Your task to perform on an android device: Open calendar and show me the second week of next month Image 0: 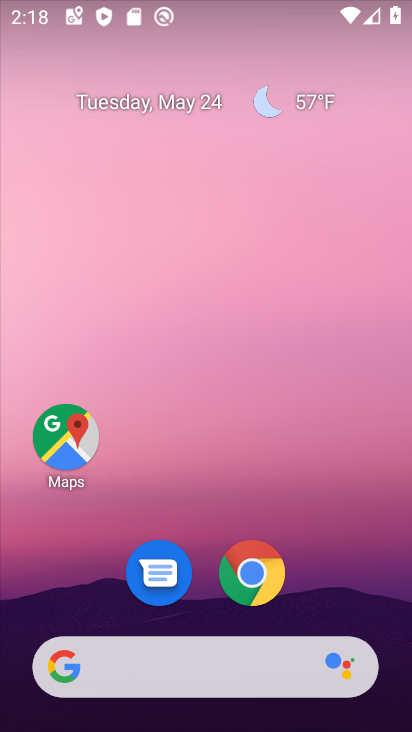
Step 0: drag from (397, 626) to (343, 253)
Your task to perform on an android device: Open calendar and show me the second week of next month Image 1: 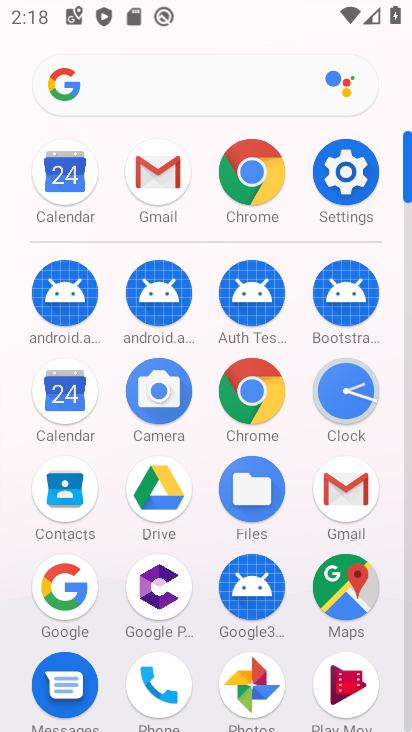
Step 1: click (63, 195)
Your task to perform on an android device: Open calendar and show me the second week of next month Image 2: 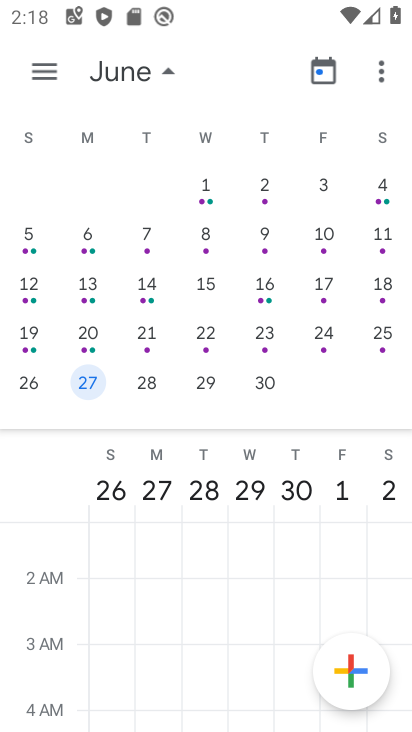
Step 2: click (84, 248)
Your task to perform on an android device: Open calendar and show me the second week of next month Image 3: 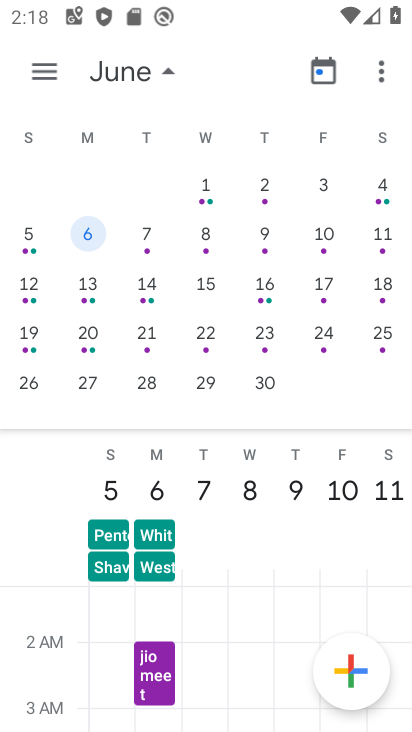
Step 3: click (87, 287)
Your task to perform on an android device: Open calendar and show me the second week of next month Image 4: 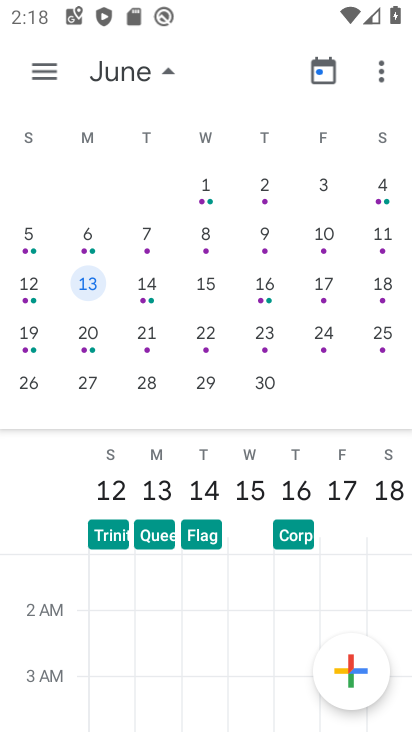
Step 4: task complete